Your task to perform on an android device: Open Android settings Image 0: 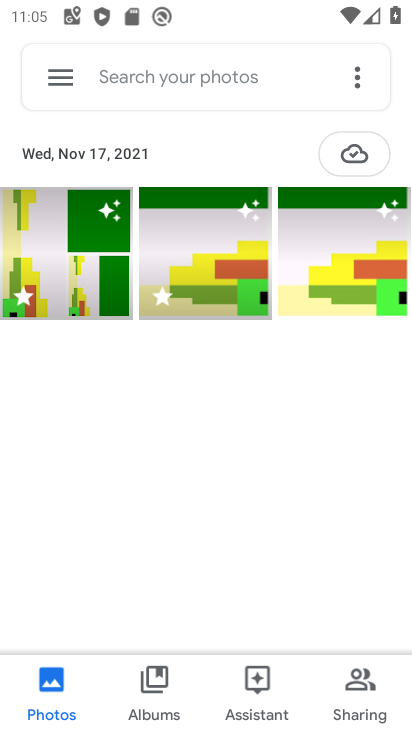
Step 0: press home button
Your task to perform on an android device: Open Android settings Image 1: 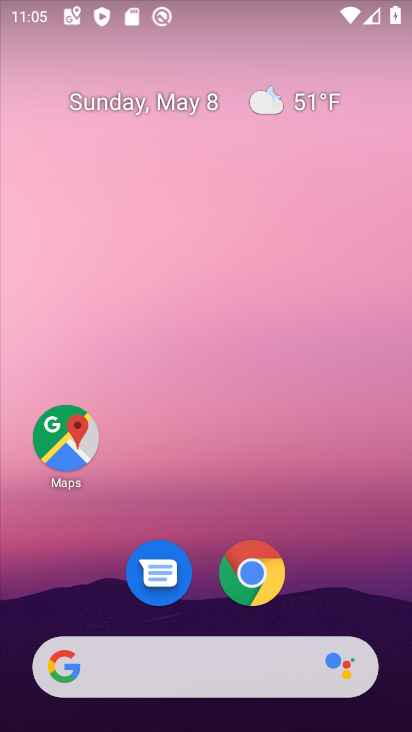
Step 1: drag from (176, 653) to (202, 238)
Your task to perform on an android device: Open Android settings Image 2: 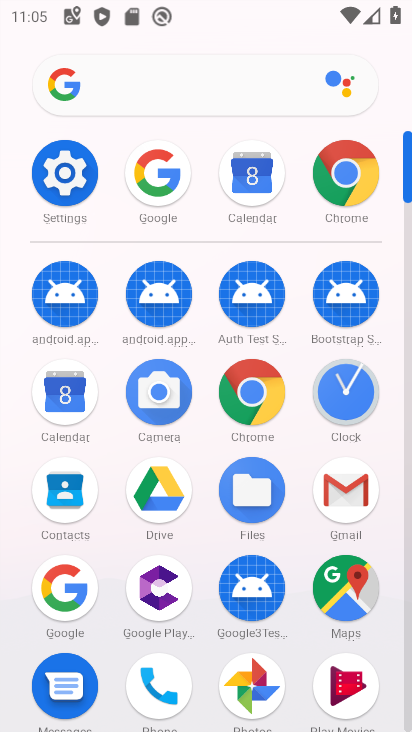
Step 2: click (54, 171)
Your task to perform on an android device: Open Android settings Image 3: 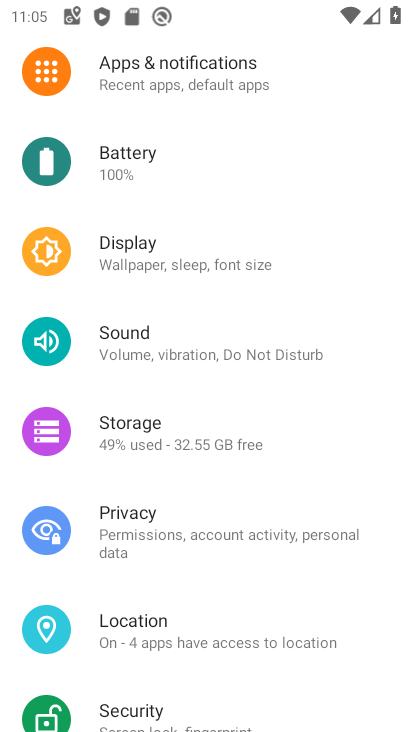
Step 3: task complete